Your task to perform on an android device: check data usage Image 0: 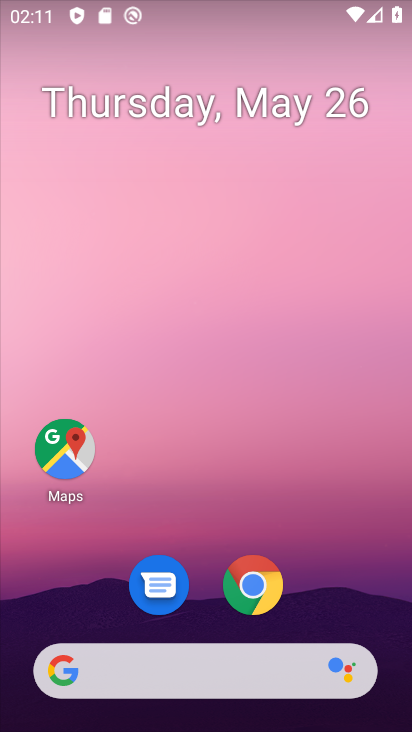
Step 0: drag from (207, 491) to (265, 11)
Your task to perform on an android device: check data usage Image 1: 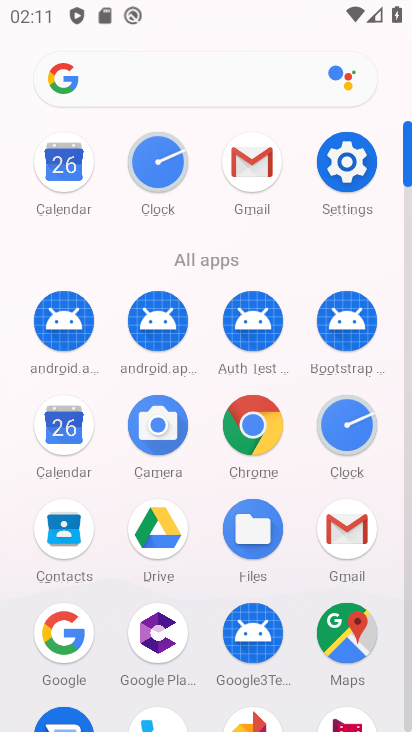
Step 1: click (342, 161)
Your task to perform on an android device: check data usage Image 2: 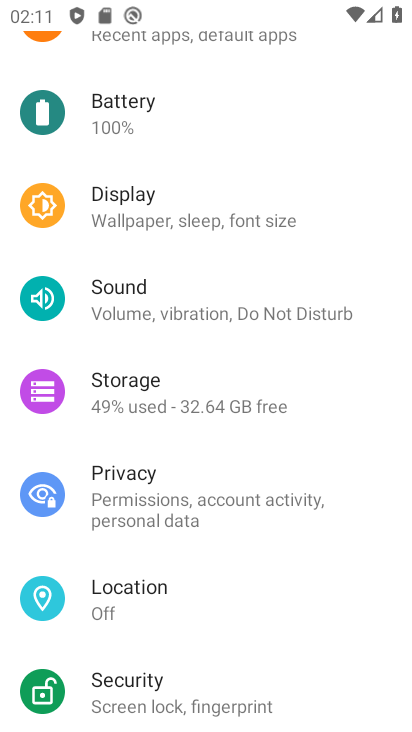
Step 2: drag from (233, 212) to (230, 627)
Your task to perform on an android device: check data usage Image 3: 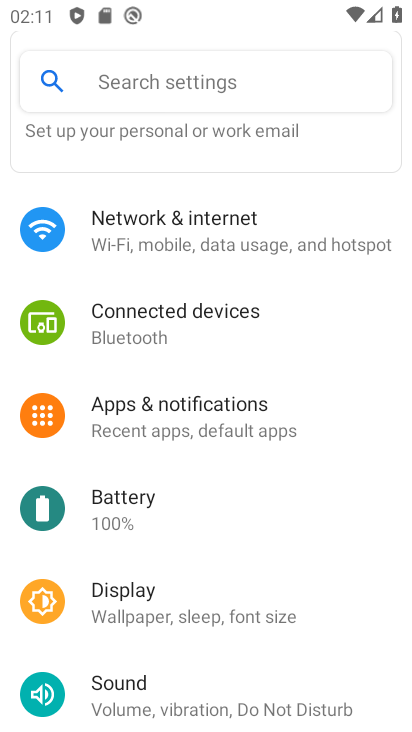
Step 3: click (215, 231)
Your task to perform on an android device: check data usage Image 4: 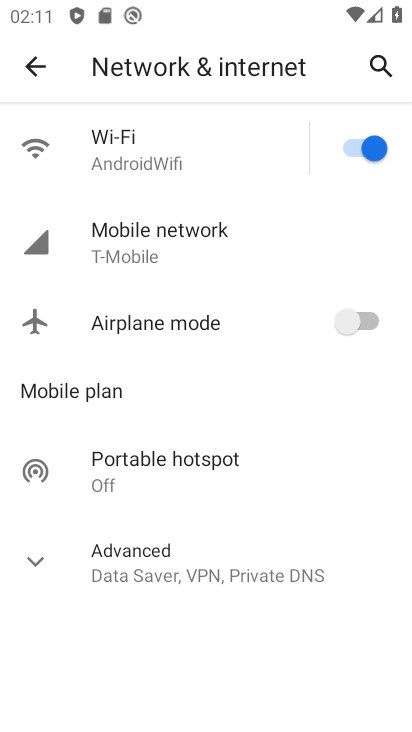
Step 4: click (226, 227)
Your task to perform on an android device: check data usage Image 5: 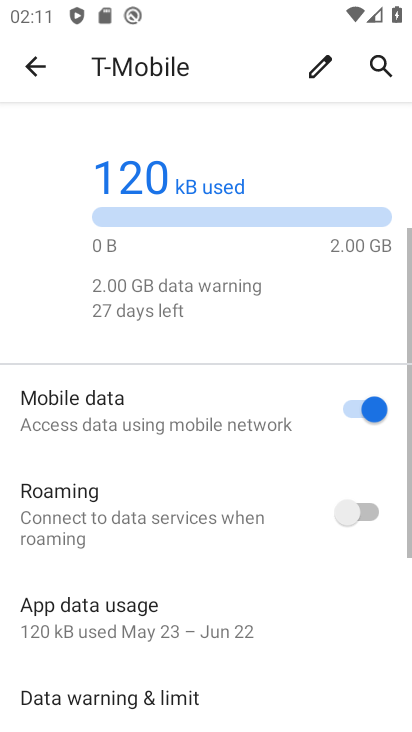
Step 5: task complete